Your task to perform on an android device: toggle improve location accuracy Image 0: 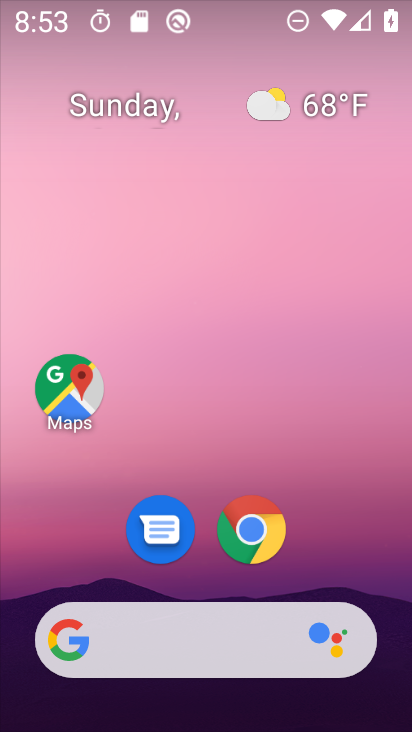
Step 0: press home button
Your task to perform on an android device: toggle improve location accuracy Image 1: 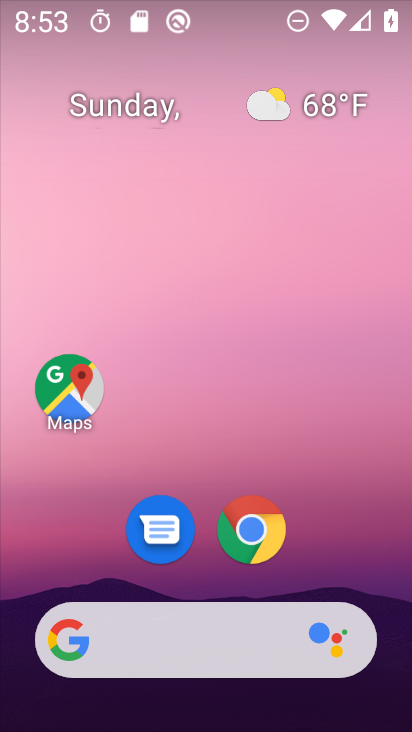
Step 1: drag from (223, 580) to (234, 0)
Your task to perform on an android device: toggle improve location accuracy Image 2: 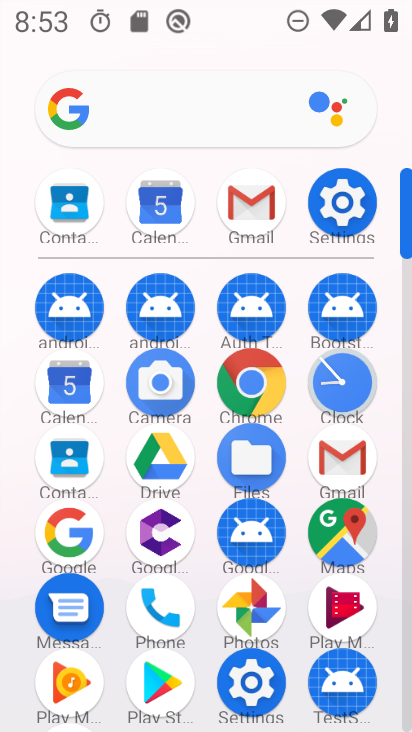
Step 2: click (341, 191)
Your task to perform on an android device: toggle improve location accuracy Image 3: 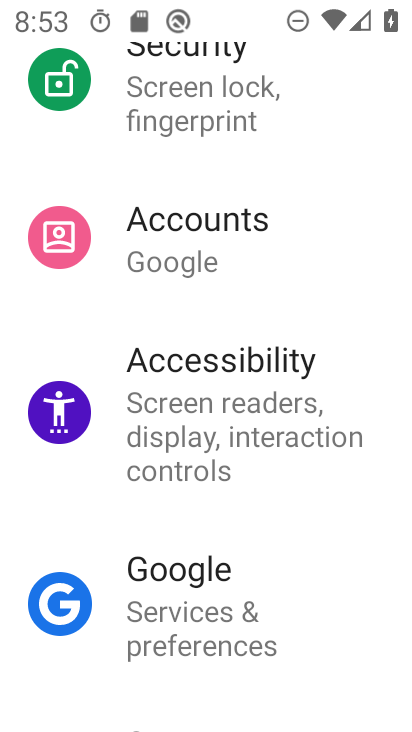
Step 3: drag from (163, 157) to (207, 668)
Your task to perform on an android device: toggle improve location accuracy Image 4: 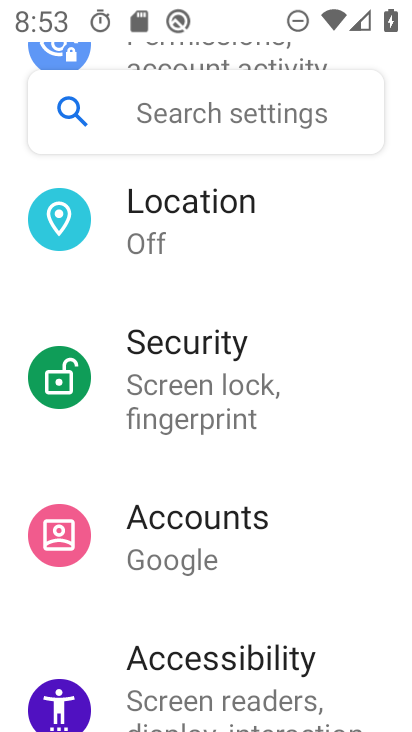
Step 4: click (112, 218)
Your task to perform on an android device: toggle improve location accuracy Image 5: 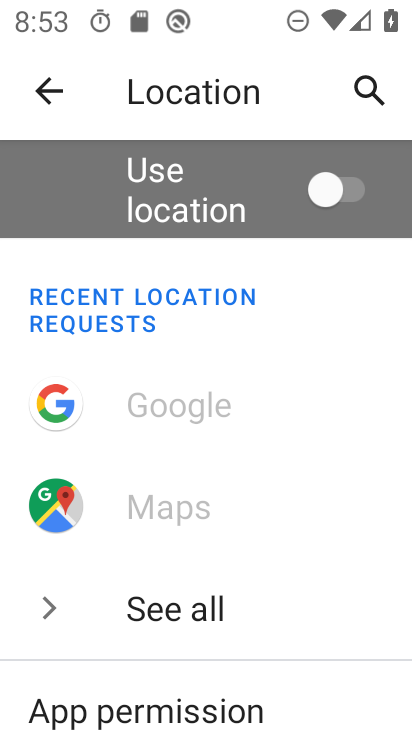
Step 5: drag from (214, 639) to (213, 140)
Your task to perform on an android device: toggle improve location accuracy Image 6: 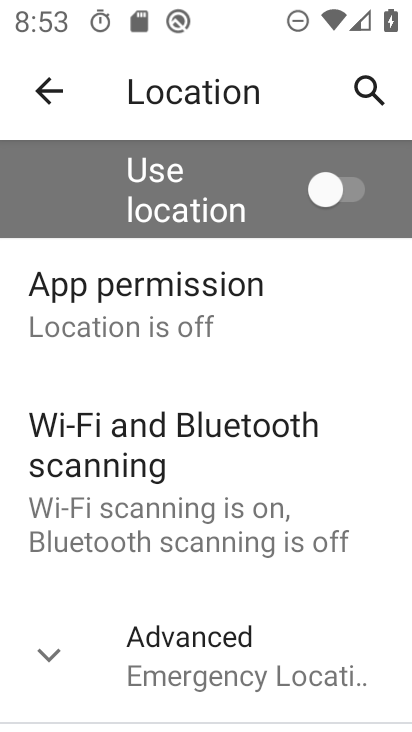
Step 6: click (52, 649)
Your task to perform on an android device: toggle improve location accuracy Image 7: 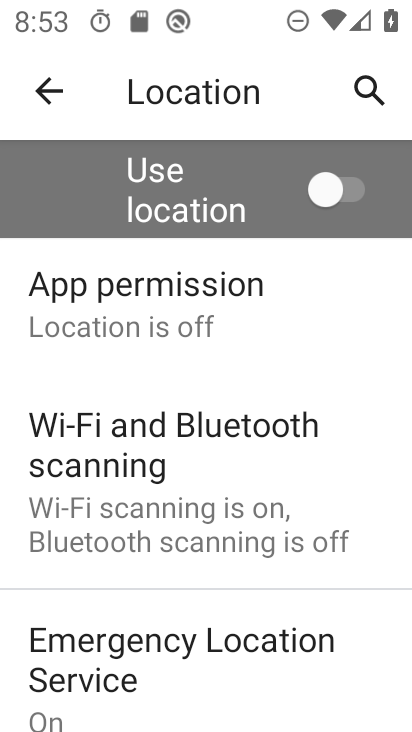
Step 7: drag from (174, 689) to (195, 259)
Your task to perform on an android device: toggle improve location accuracy Image 8: 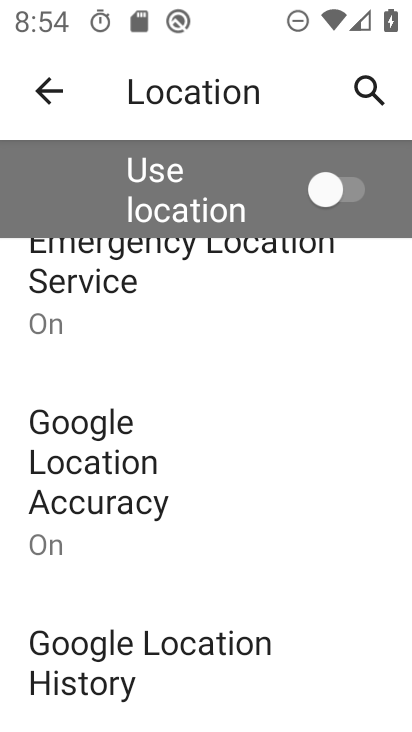
Step 8: click (176, 464)
Your task to perform on an android device: toggle improve location accuracy Image 9: 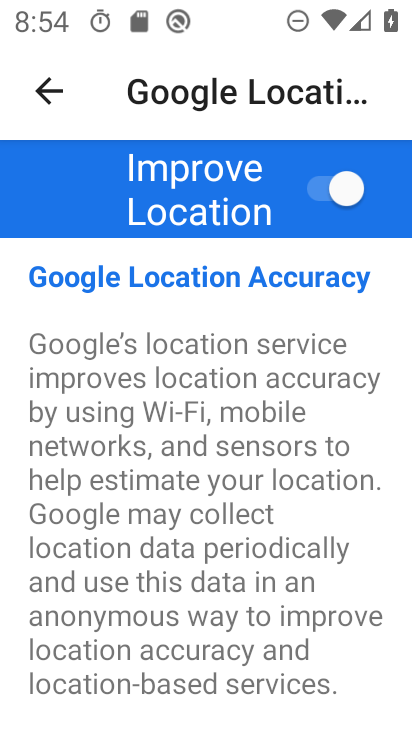
Step 9: click (329, 189)
Your task to perform on an android device: toggle improve location accuracy Image 10: 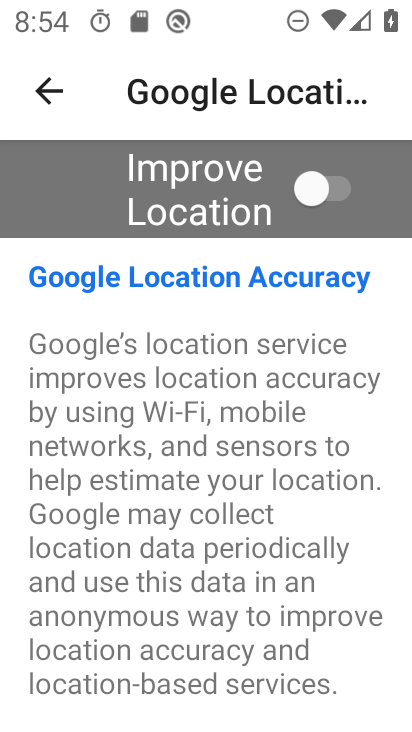
Step 10: task complete